Your task to perform on an android device: turn off notifications settings in the gmail app Image 0: 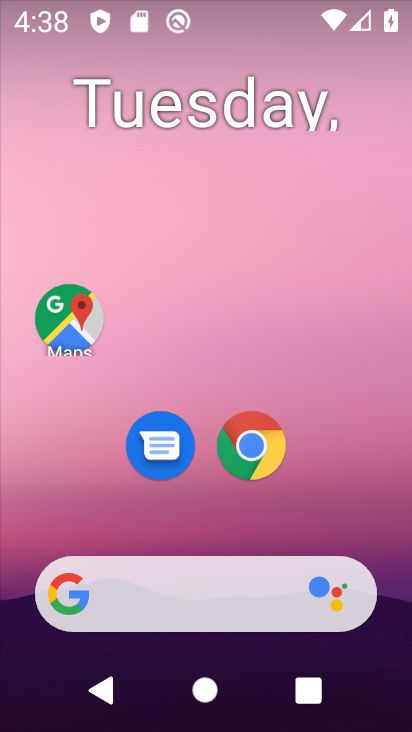
Step 0: drag from (320, 503) to (347, 133)
Your task to perform on an android device: turn off notifications settings in the gmail app Image 1: 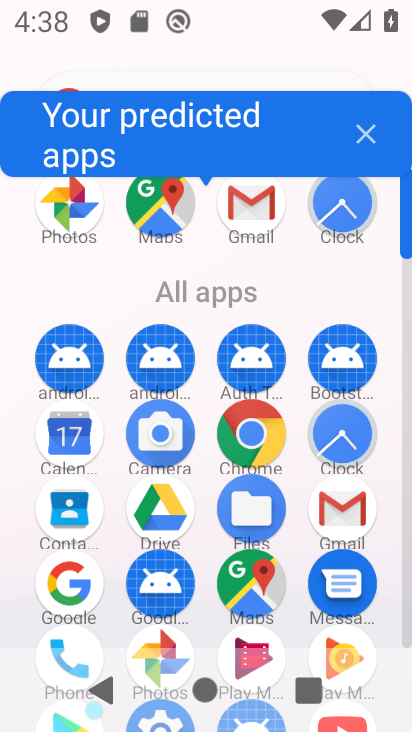
Step 1: click (244, 230)
Your task to perform on an android device: turn off notifications settings in the gmail app Image 2: 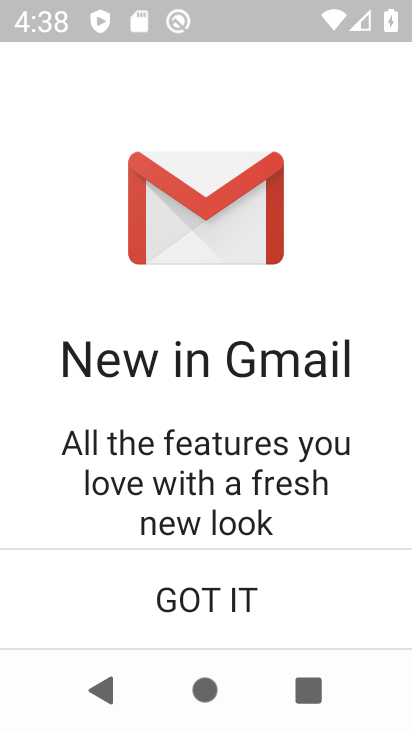
Step 2: click (238, 615)
Your task to perform on an android device: turn off notifications settings in the gmail app Image 3: 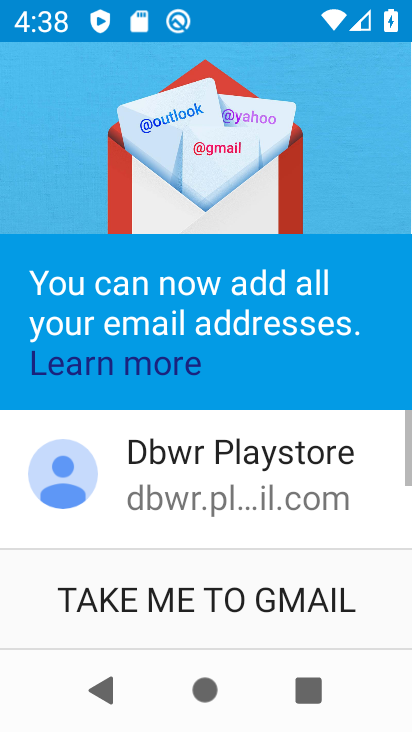
Step 3: click (238, 615)
Your task to perform on an android device: turn off notifications settings in the gmail app Image 4: 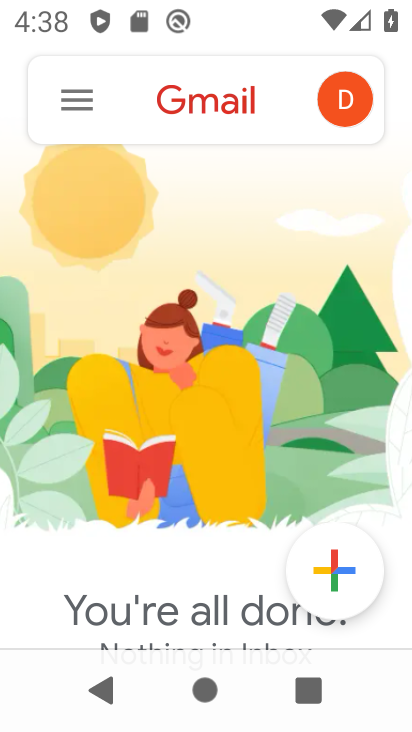
Step 4: click (71, 103)
Your task to perform on an android device: turn off notifications settings in the gmail app Image 5: 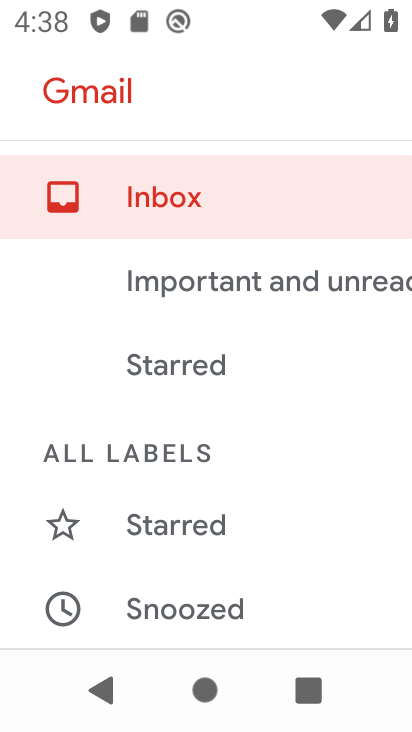
Step 5: drag from (147, 600) to (199, 154)
Your task to perform on an android device: turn off notifications settings in the gmail app Image 6: 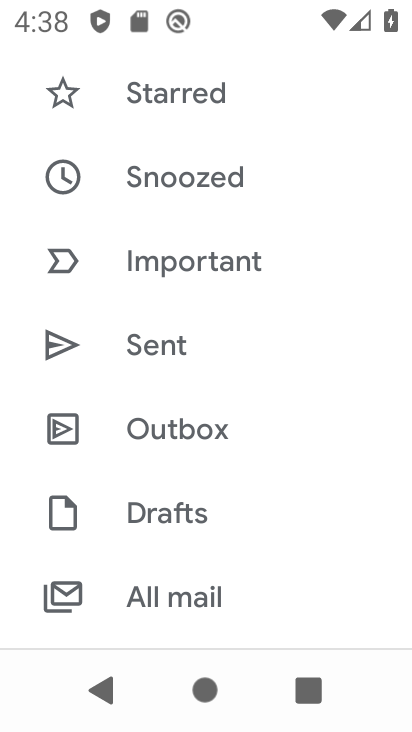
Step 6: drag from (220, 604) to (271, 157)
Your task to perform on an android device: turn off notifications settings in the gmail app Image 7: 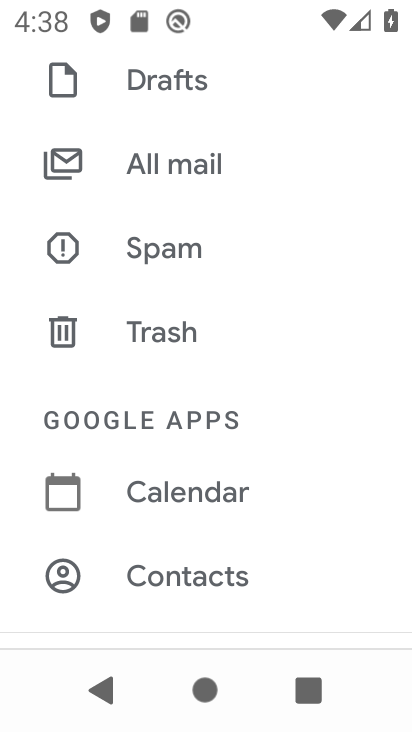
Step 7: drag from (276, 587) to (307, 178)
Your task to perform on an android device: turn off notifications settings in the gmail app Image 8: 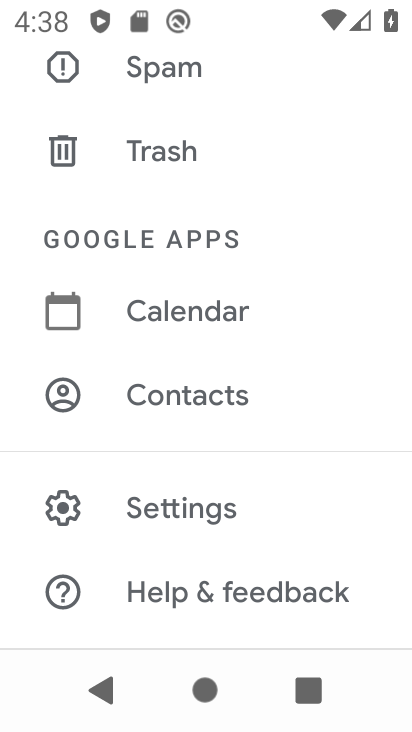
Step 8: click (217, 515)
Your task to perform on an android device: turn off notifications settings in the gmail app Image 9: 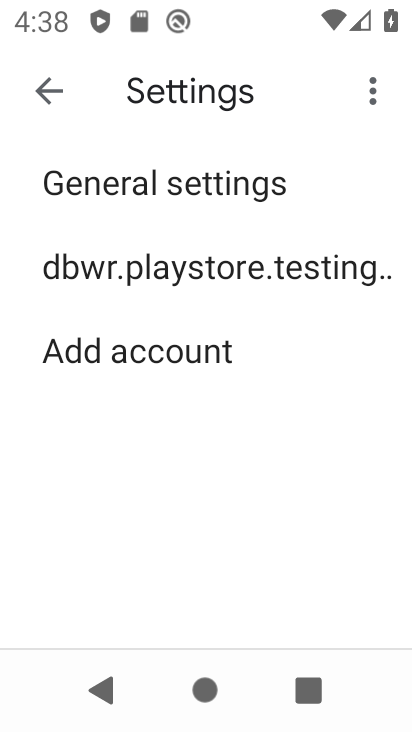
Step 9: click (218, 261)
Your task to perform on an android device: turn off notifications settings in the gmail app Image 10: 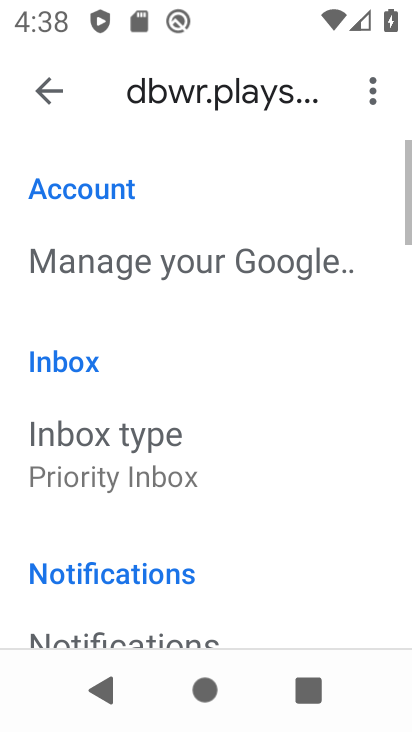
Step 10: drag from (207, 614) to (207, 441)
Your task to perform on an android device: turn off notifications settings in the gmail app Image 11: 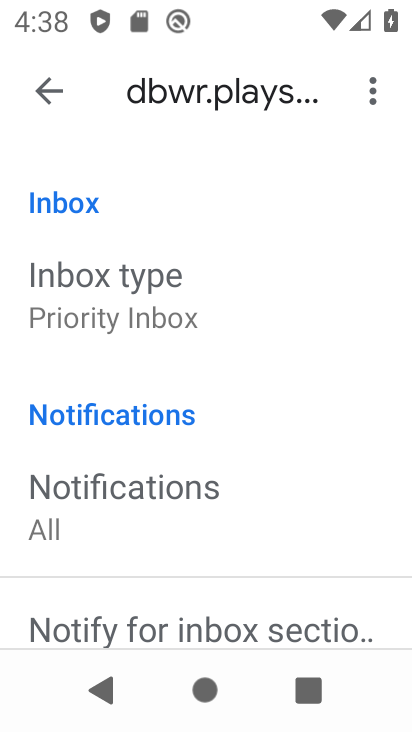
Step 11: click (167, 510)
Your task to perform on an android device: turn off notifications settings in the gmail app Image 12: 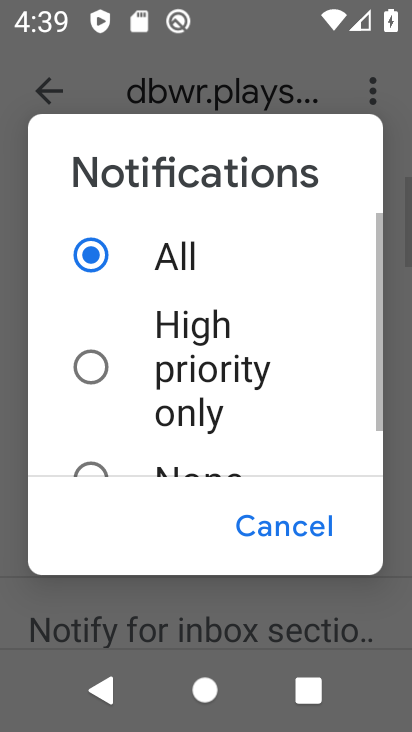
Step 12: drag from (198, 384) to (216, 271)
Your task to perform on an android device: turn off notifications settings in the gmail app Image 13: 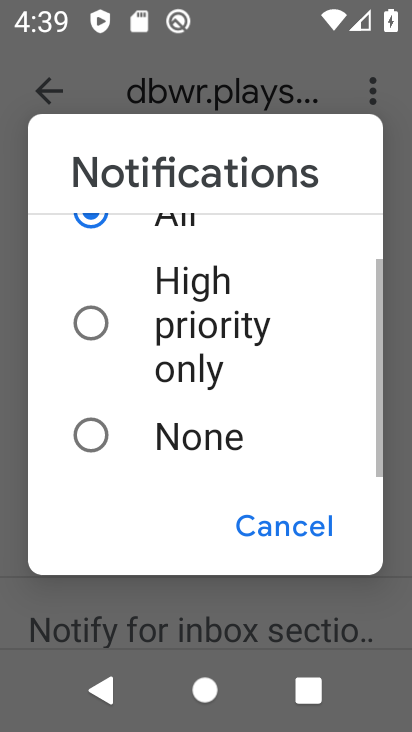
Step 13: click (201, 443)
Your task to perform on an android device: turn off notifications settings in the gmail app Image 14: 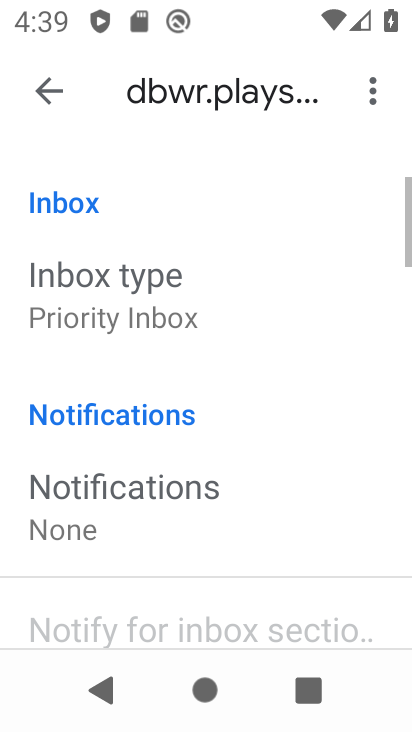
Step 14: task complete